Your task to perform on an android device: Go to location settings Image 0: 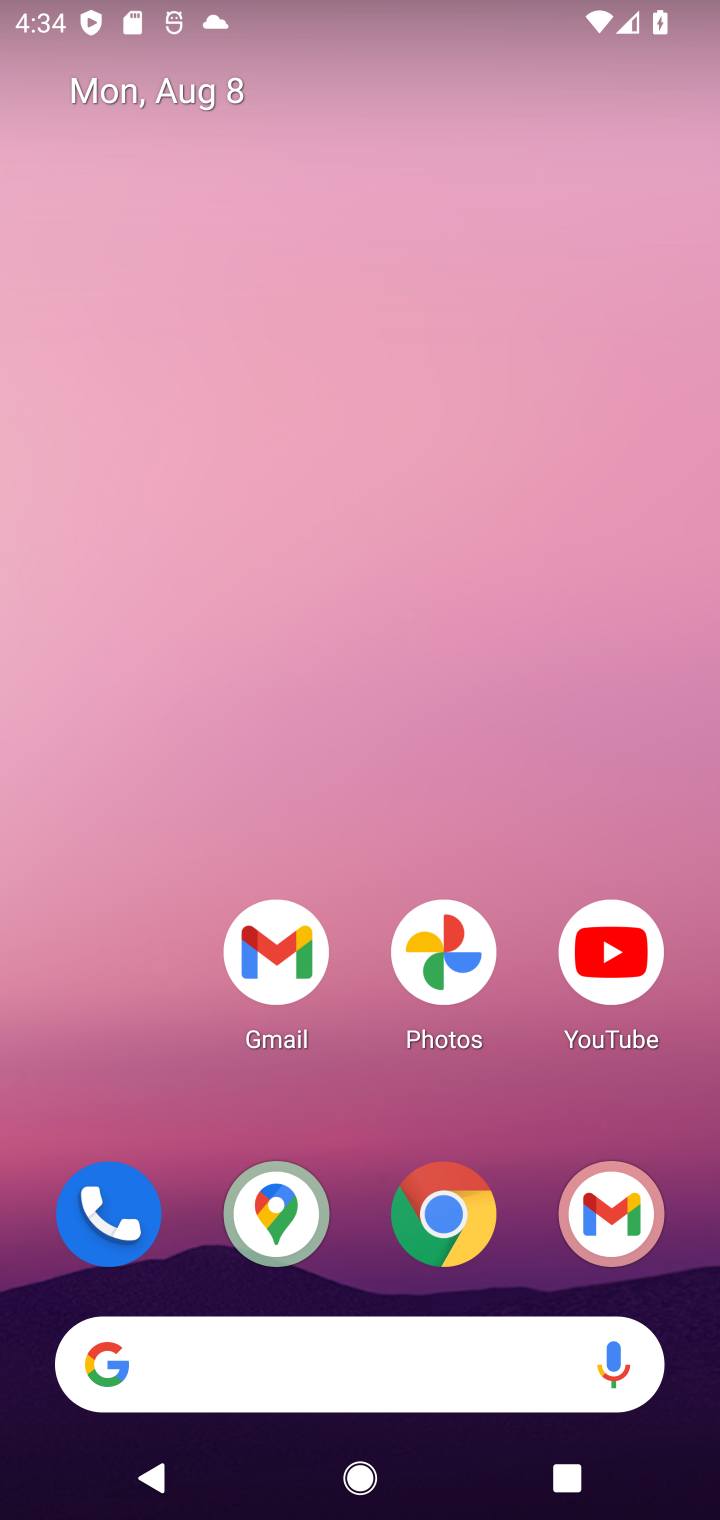
Step 0: drag from (346, 1304) to (291, 112)
Your task to perform on an android device: Go to location settings Image 1: 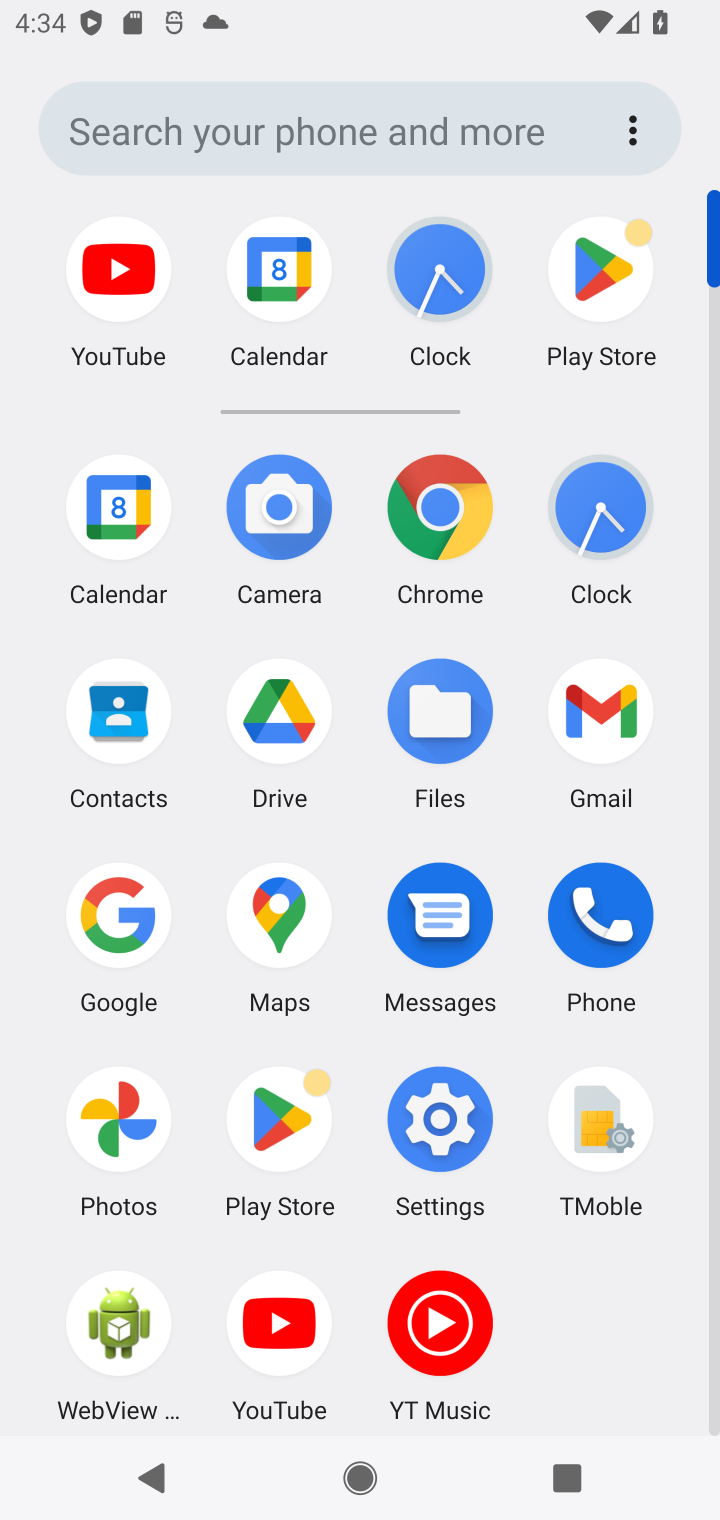
Step 1: click (444, 1116)
Your task to perform on an android device: Go to location settings Image 2: 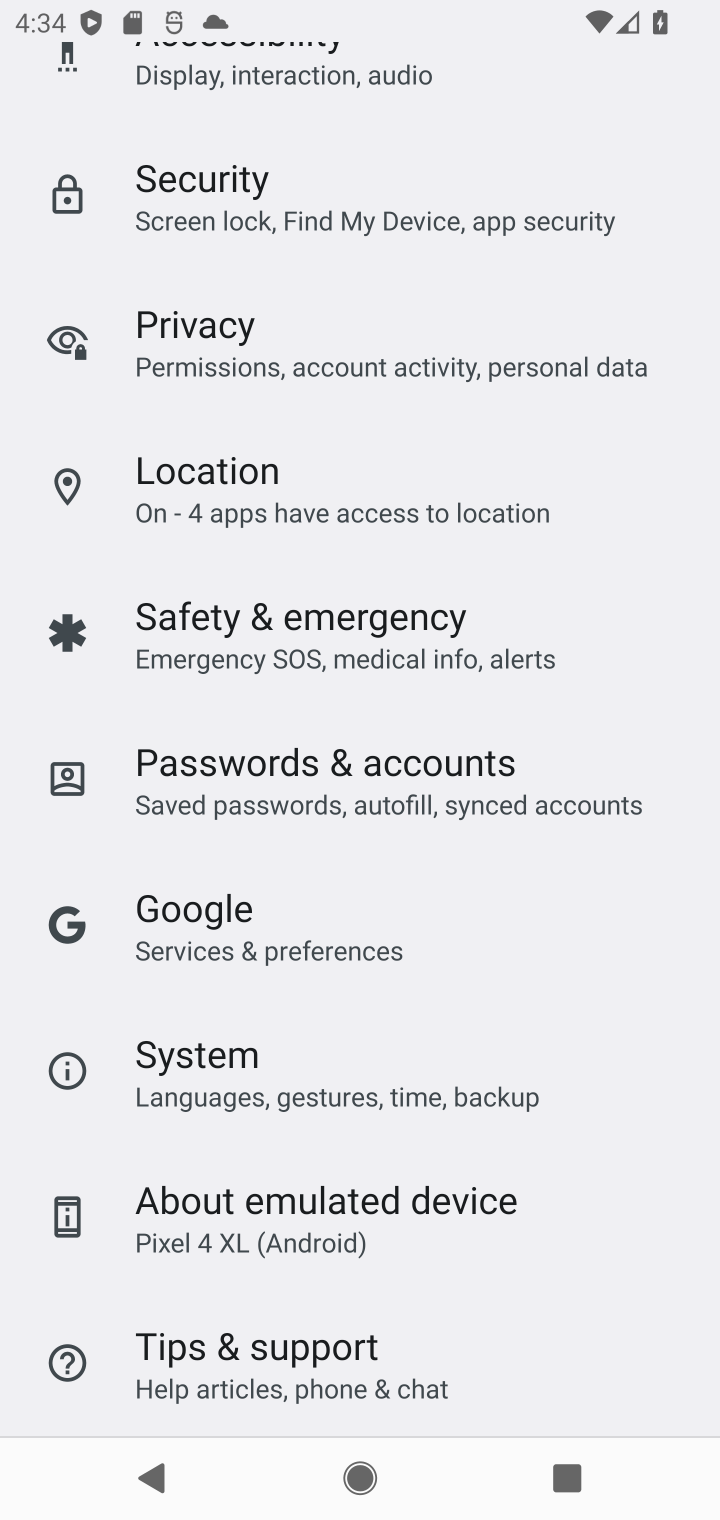
Step 2: click (176, 491)
Your task to perform on an android device: Go to location settings Image 3: 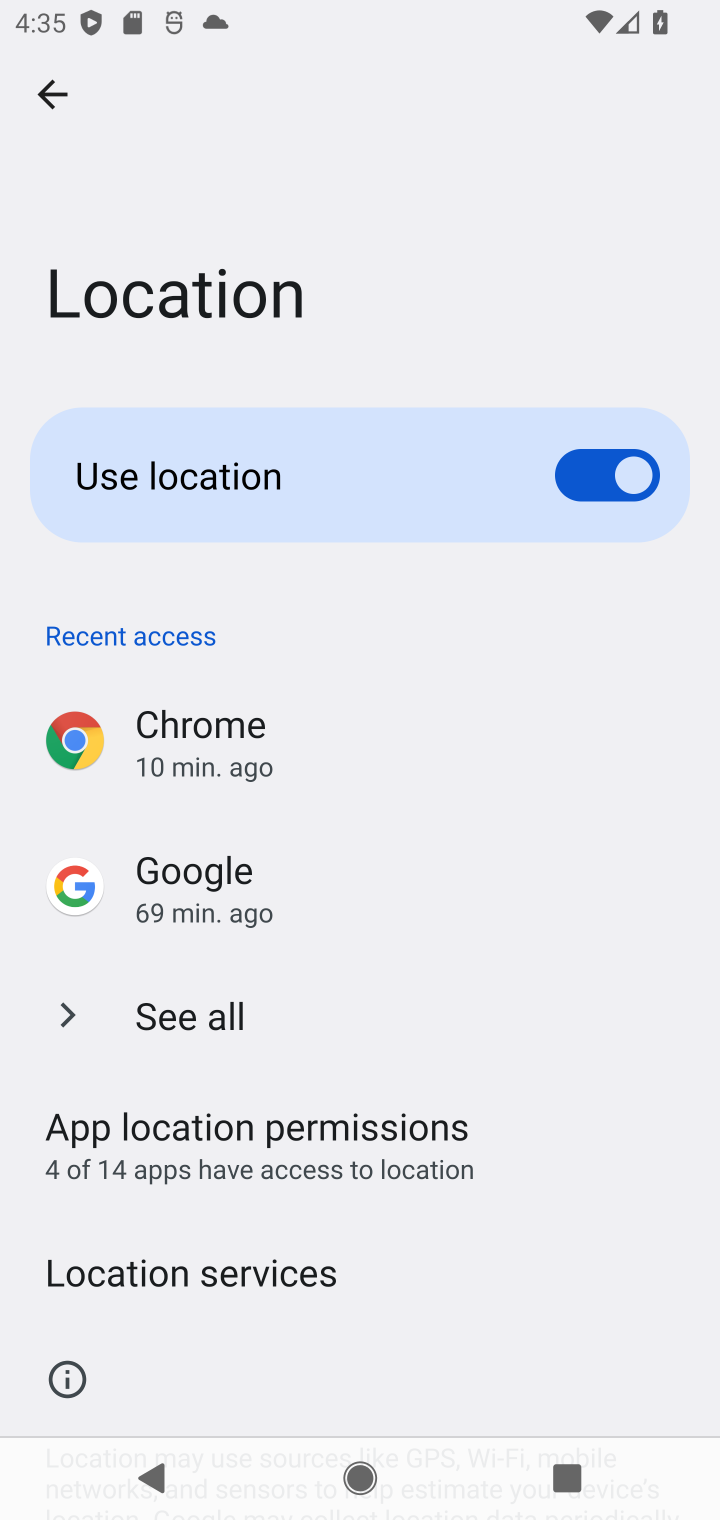
Step 3: task complete